Your task to perform on an android device: find photos in the google photos app Image 0: 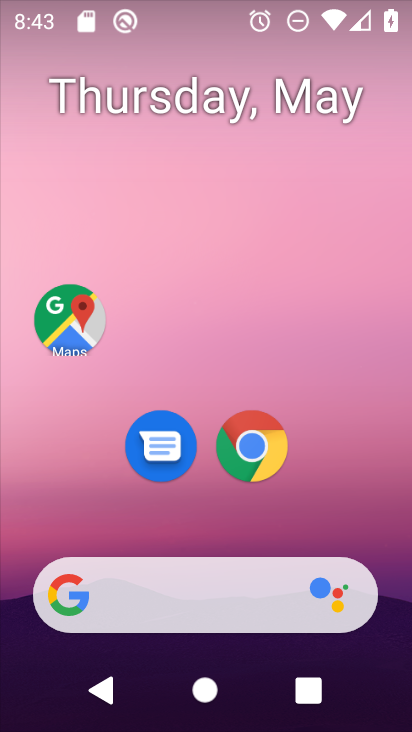
Step 0: press home button
Your task to perform on an android device: find photos in the google photos app Image 1: 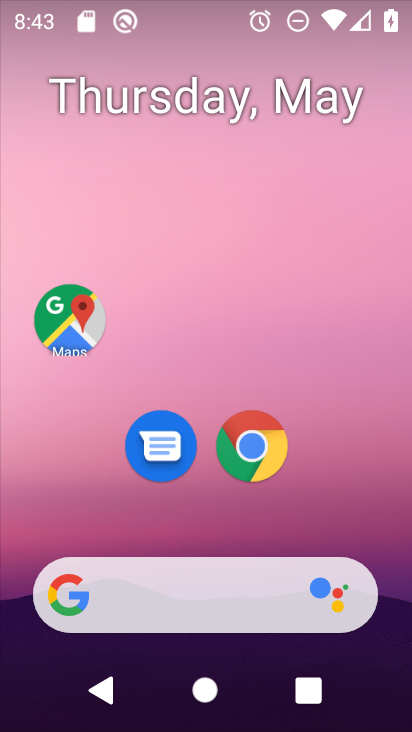
Step 1: drag from (350, 512) to (354, 190)
Your task to perform on an android device: find photos in the google photos app Image 2: 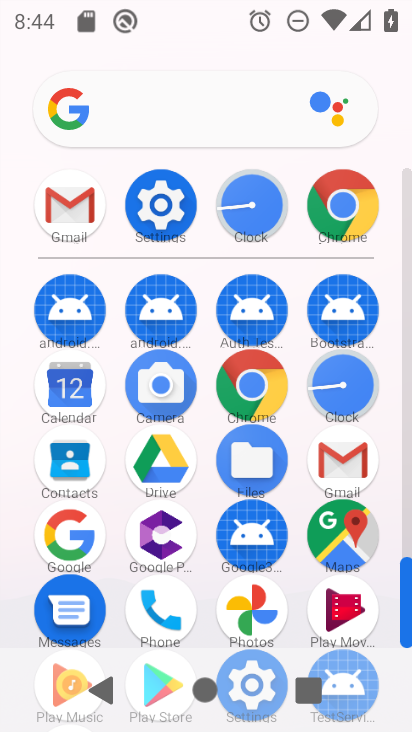
Step 2: click (253, 606)
Your task to perform on an android device: find photos in the google photos app Image 3: 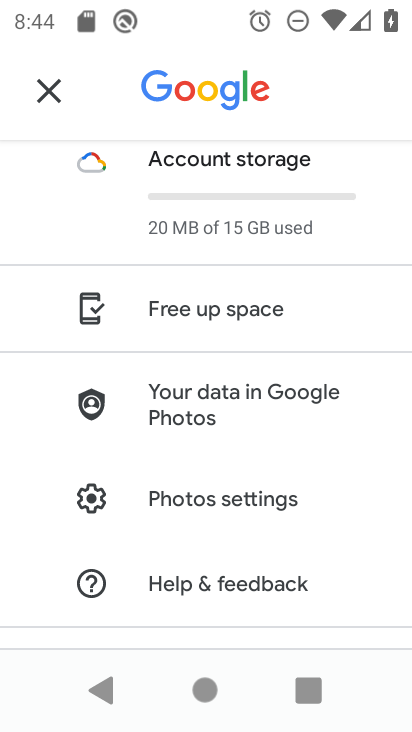
Step 3: click (55, 94)
Your task to perform on an android device: find photos in the google photos app Image 4: 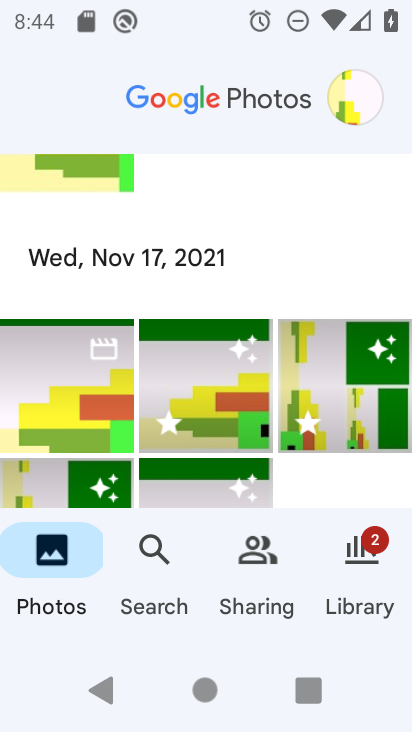
Step 4: task complete